Your task to perform on an android device: Go to Yahoo.com Image 0: 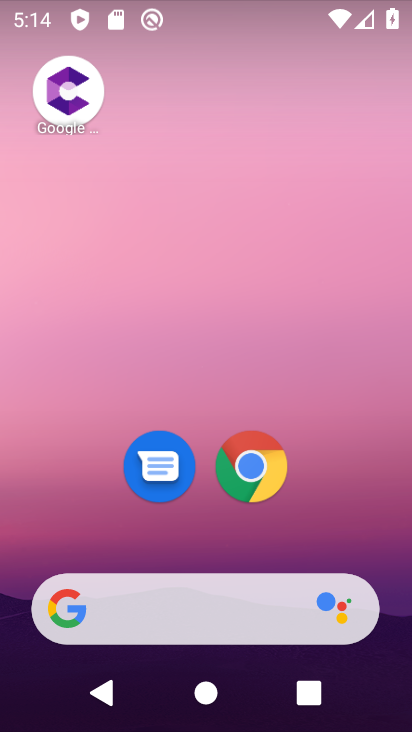
Step 0: click (249, 454)
Your task to perform on an android device: Go to Yahoo.com Image 1: 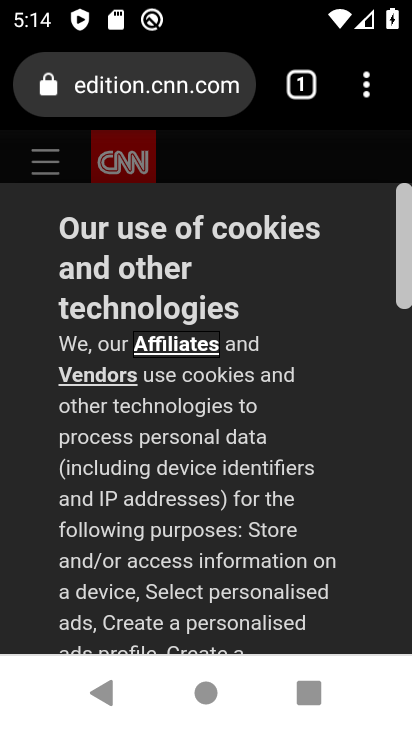
Step 1: click (144, 88)
Your task to perform on an android device: Go to Yahoo.com Image 2: 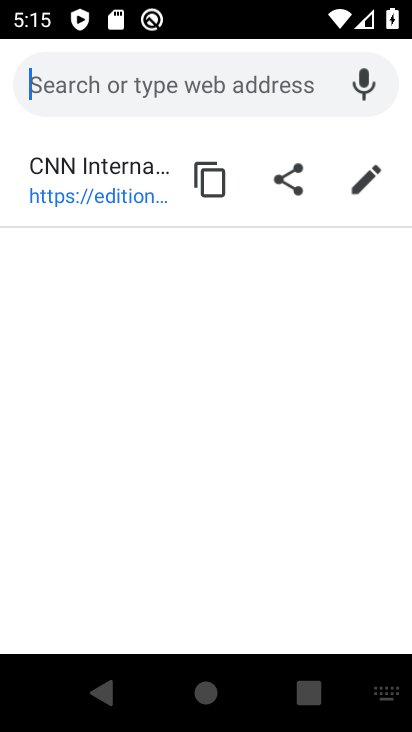
Step 2: type "Yahoo.com"
Your task to perform on an android device: Go to Yahoo.com Image 3: 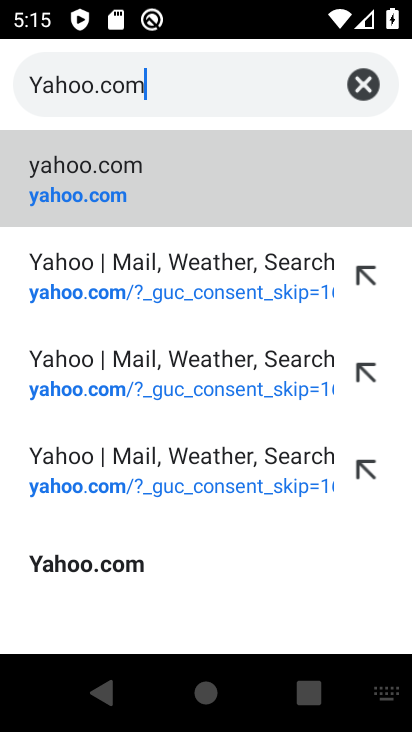
Step 3: type ""
Your task to perform on an android device: Go to Yahoo.com Image 4: 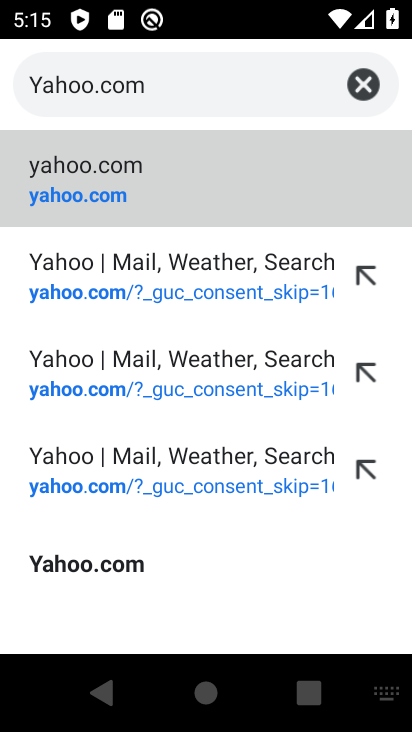
Step 4: click (62, 569)
Your task to perform on an android device: Go to Yahoo.com Image 5: 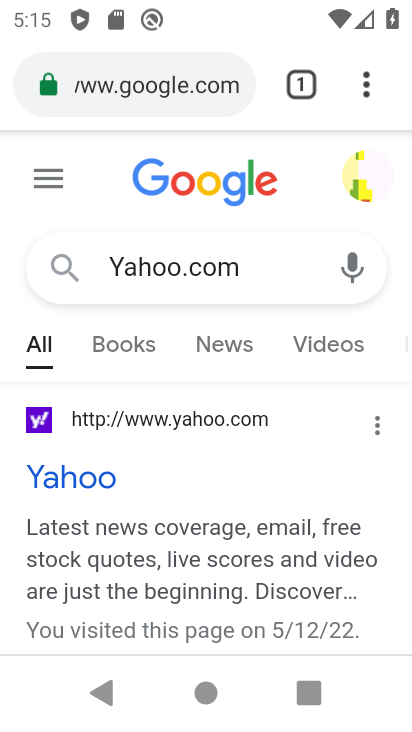
Step 5: click (92, 416)
Your task to perform on an android device: Go to Yahoo.com Image 6: 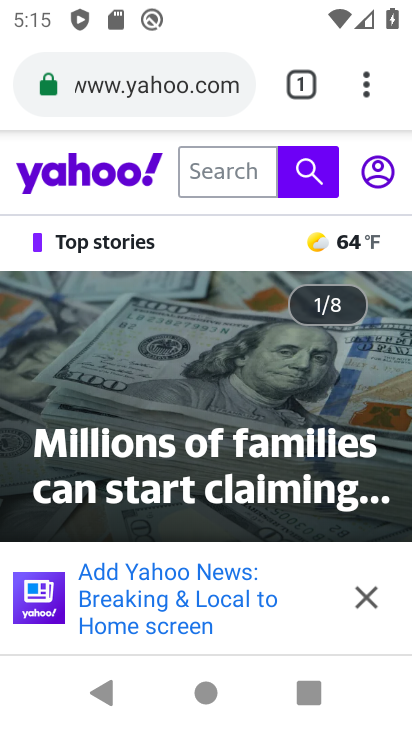
Step 6: task complete